Your task to perform on an android device: Open Youtube and go to the subscriptions tab Image 0: 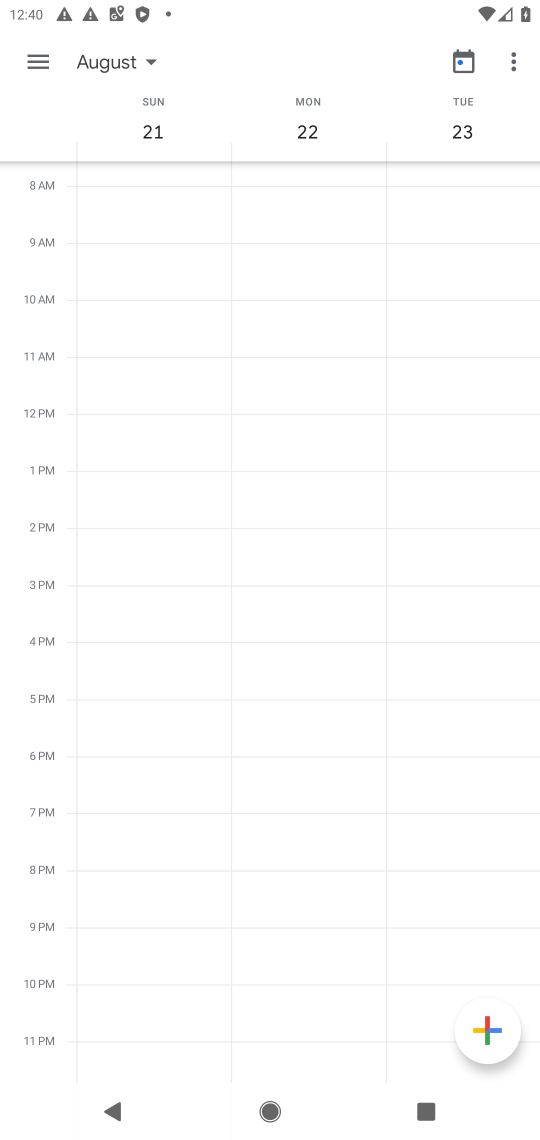
Step 0: press home button
Your task to perform on an android device: Open Youtube and go to the subscriptions tab Image 1: 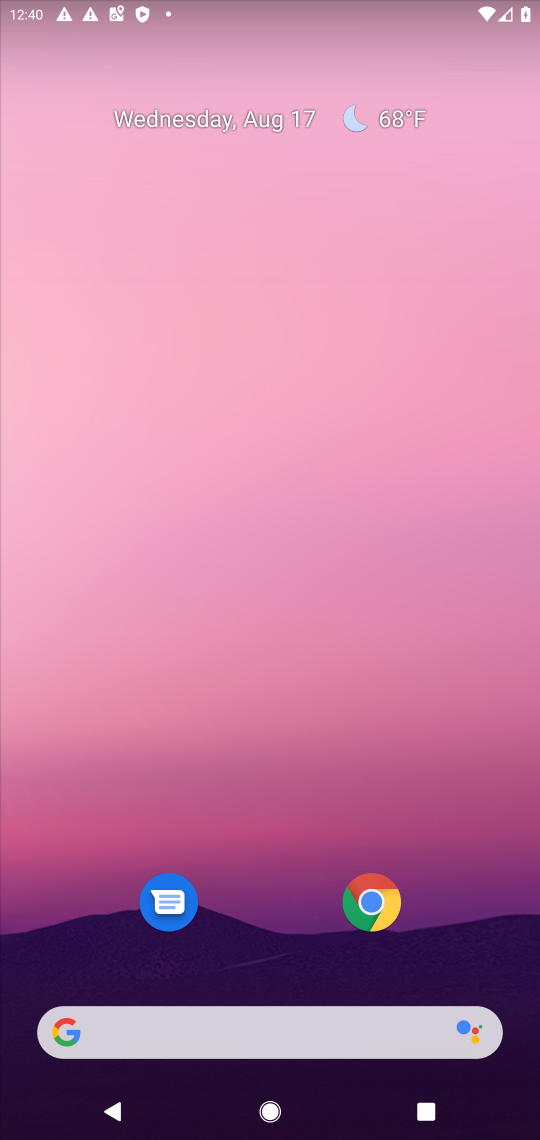
Step 1: drag from (256, 952) to (364, 52)
Your task to perform on an android device: Open Youtube and go to the subscriptions tab Image 2: 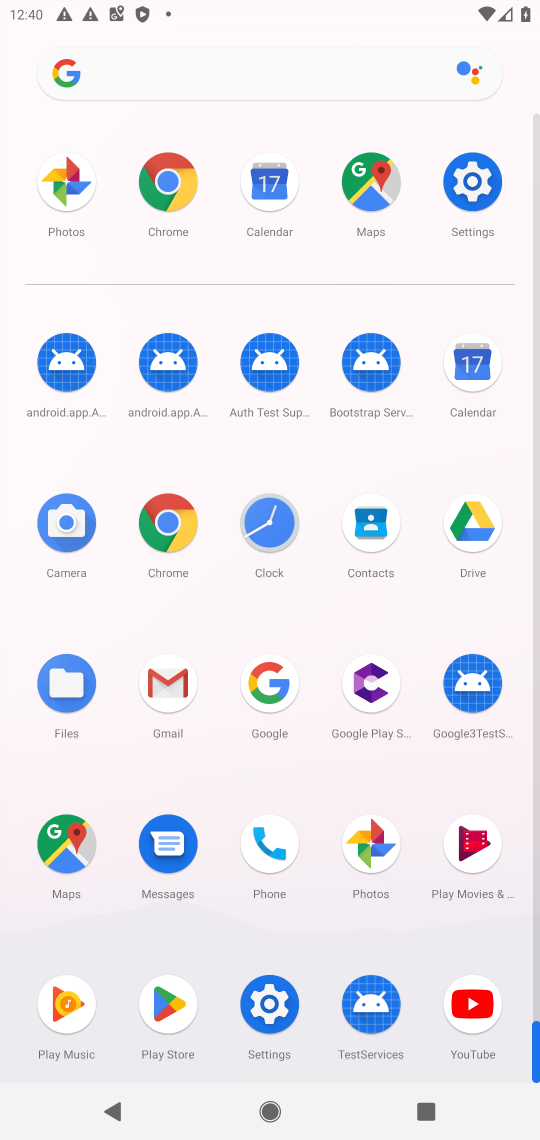
Step 2: click (485, 992)
Your task to perform on an android device: Open Youtube and go to the subscriptions tab Image 3: 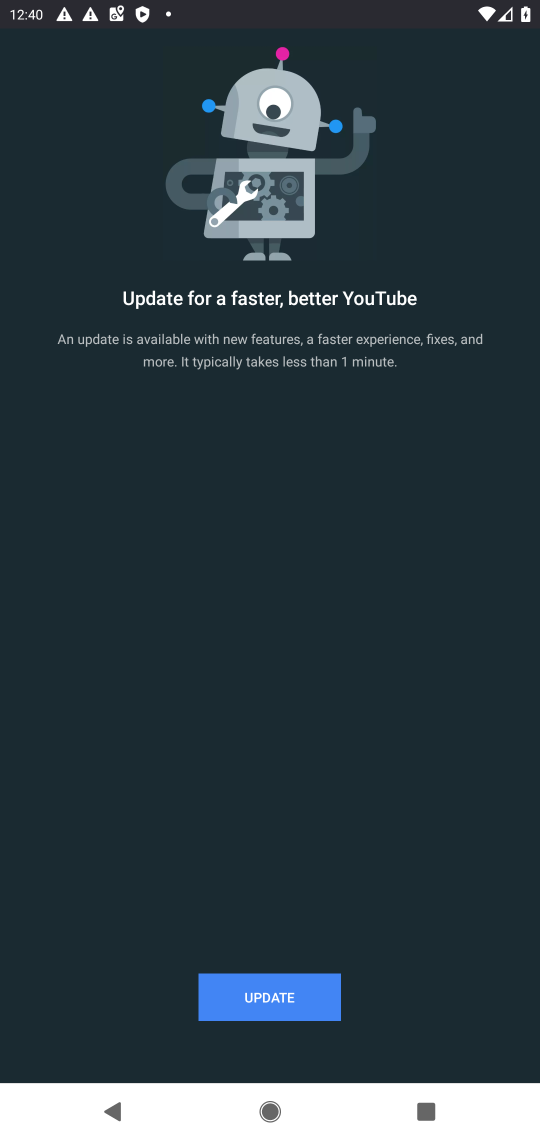
Step 3: click (295, 988)
Your task to perform on an android device: Open Youtube and go to the subscriptions tab Image 4: 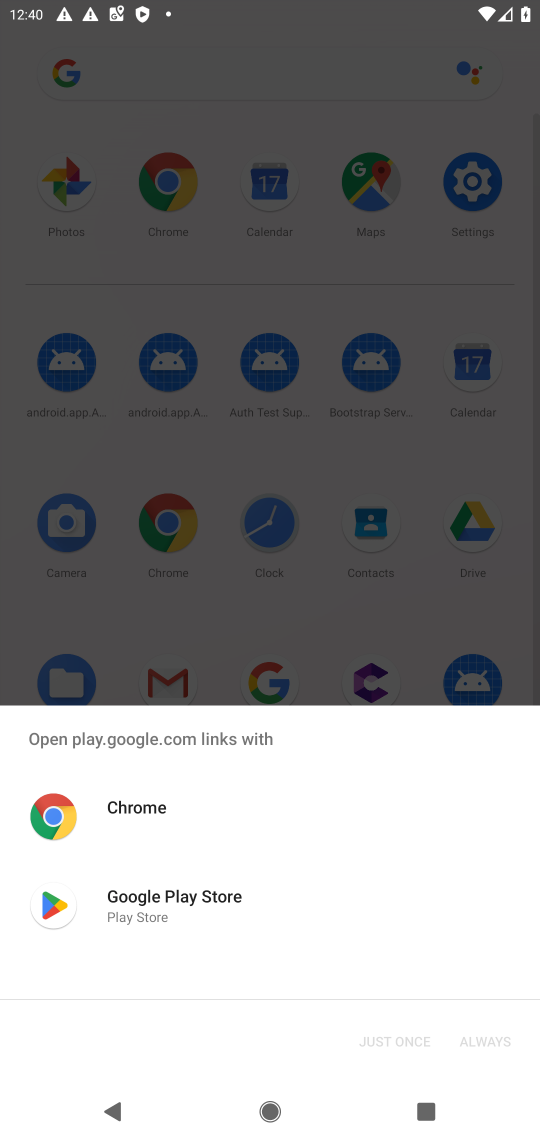
Step 4: click (230, 901)
Your task to perform on an android device: Open Youtube and go to the subscriptions tab Image 5: 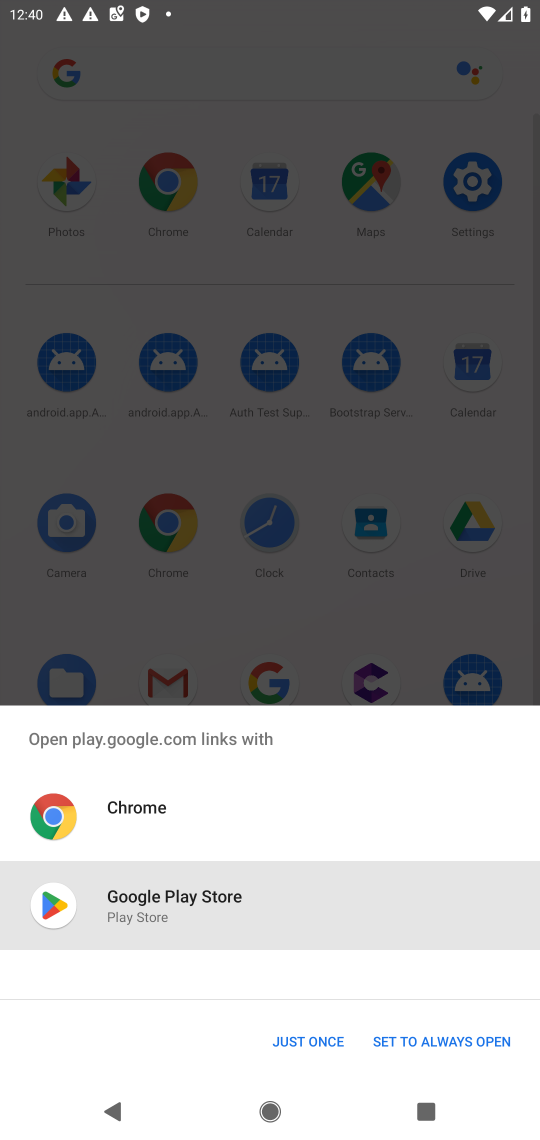
Step 5: click (292, 1041)
Your task to perform on an android device: Open Youtube and go to the subscriptions tab Image 6: 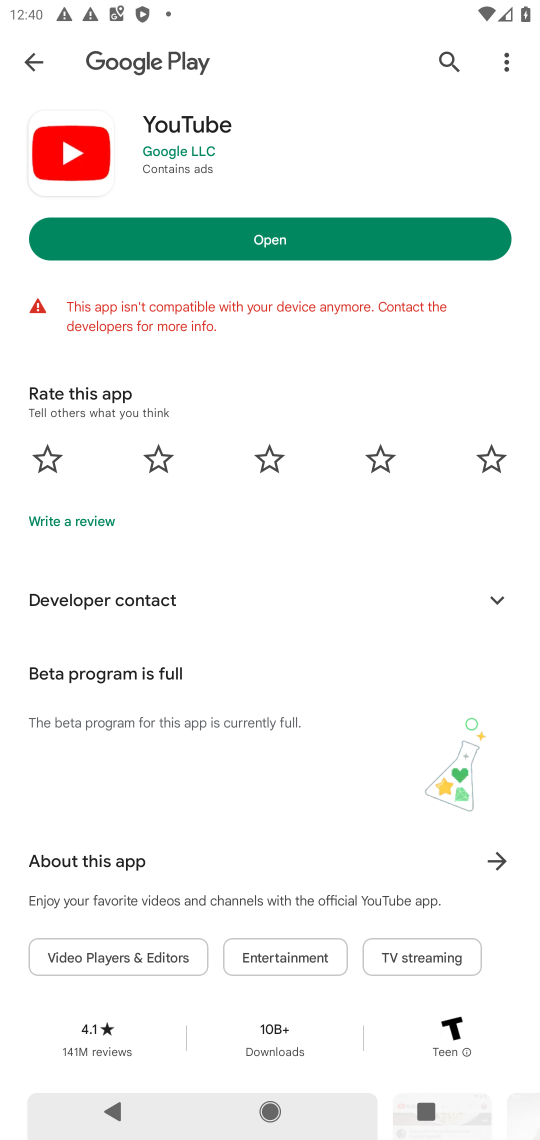
Step 6: click (288, 221)
Your task to perform on an android device: Open Youtube and go to the subscriptions tab Image 7: 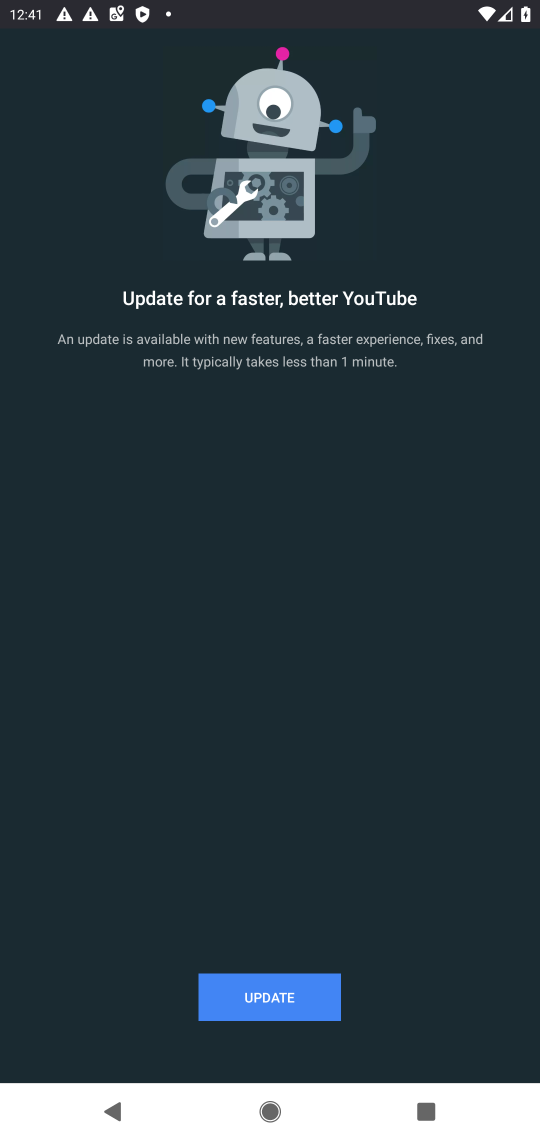
Step 7: click (259, 994)
Your task to perform on an android device: Open Youtube and go to the subscriptions tab Image 8: 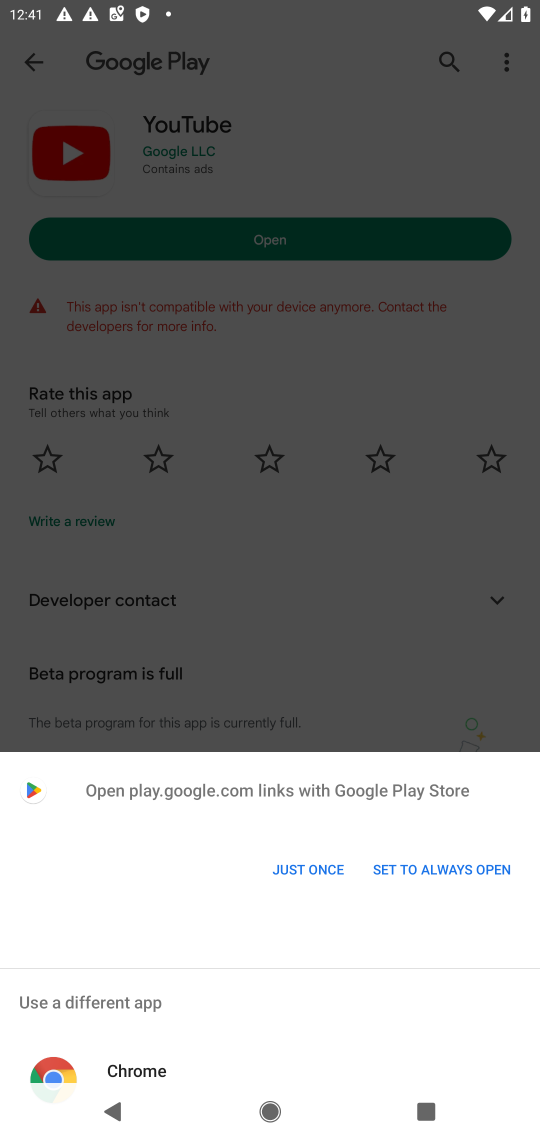
Step 8: click (307, 855)
Your task to perform on an android device: Open Youtube and go to the subscriptions tab Image 9: 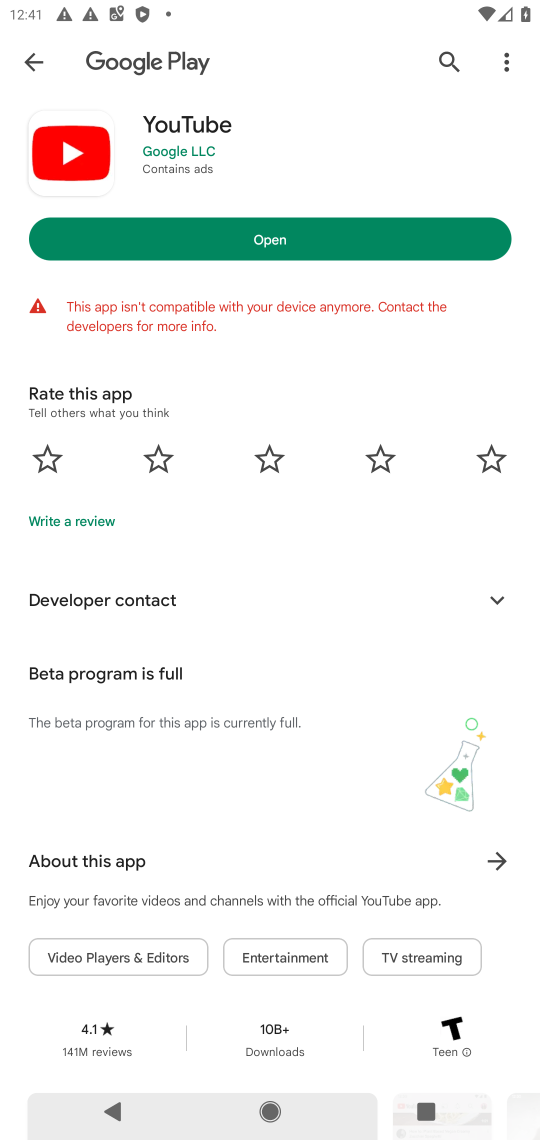
Step 9: task complete